Your task to perform on an android device: turn notification dots off Image 0: 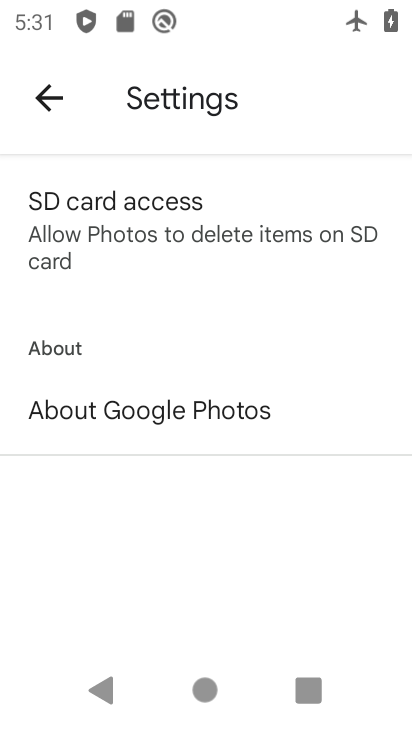
Step 0: press home button
Your task to perform on an android device: turn notification dots off Image 1: 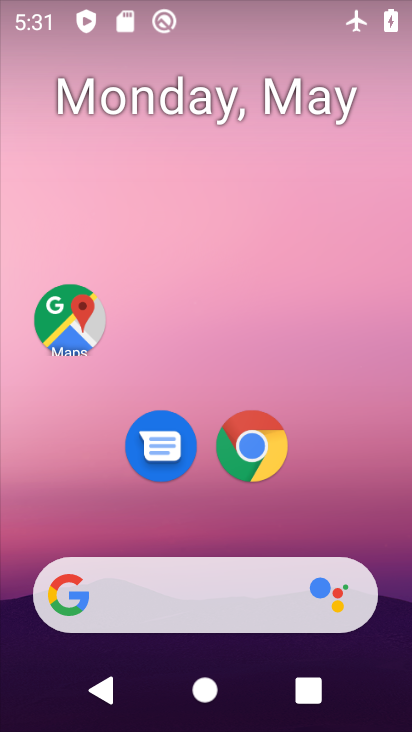
Step 1: drag from (353, 502) to (183, 124)
Your task to perform on an android device: turn notification dots off Image 2: 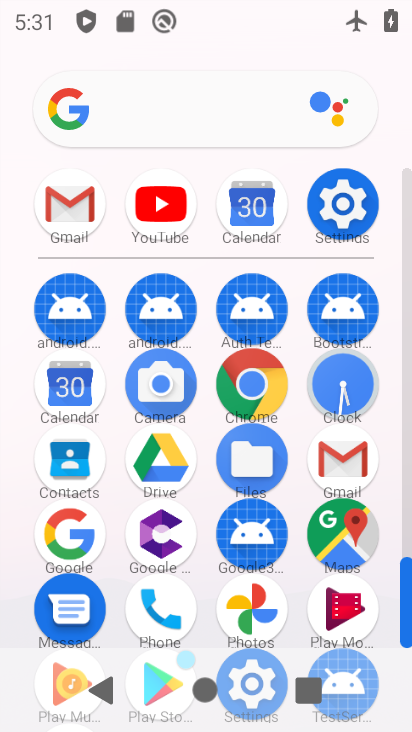
Step 2: click (330, 197)
Your task to perform on an android device: turn notification dots off Image 3: 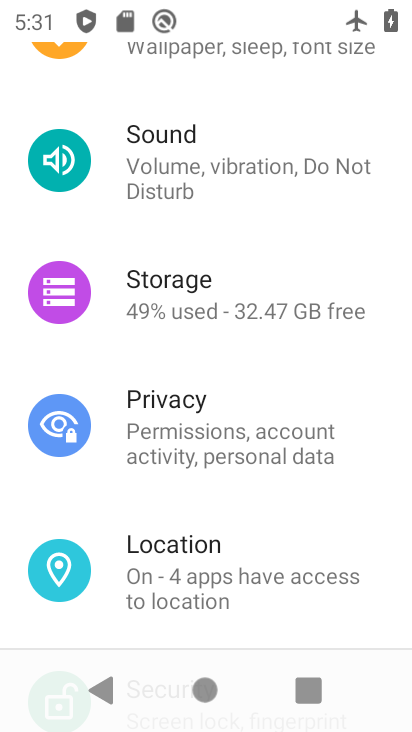
Step 3: drag from (216, 213) to (192, 624)
Your task to perform on an android device: turn notification dots off Image 4: 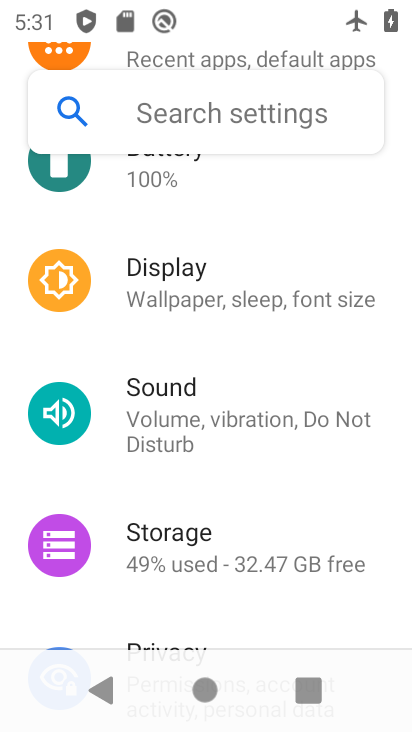
Step 4: drag from (159, 220) to (186, 699)
Your task to perform on an android device: turn notification dots off Image 5: 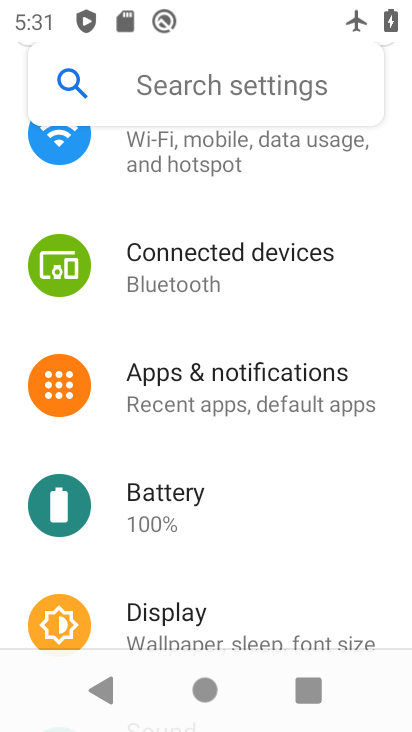
Step 5: click (232, 371)
Your task to perform on an android device: turn notification dots off Image 6: 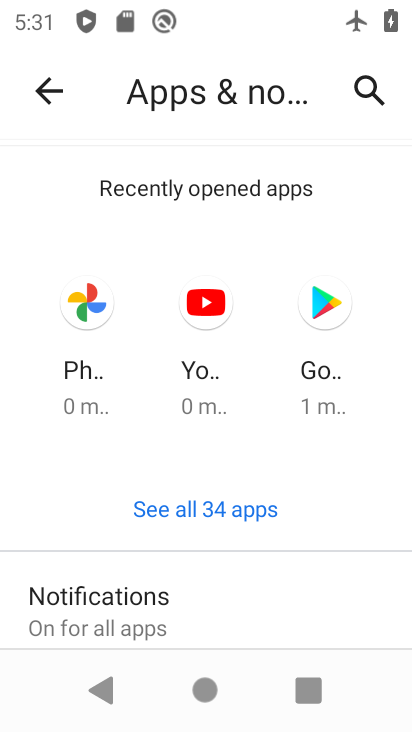
Step 6: drag from (231, 575) to (203, 286)
Your task to perform on an android device: turn notification dots off Image 7: 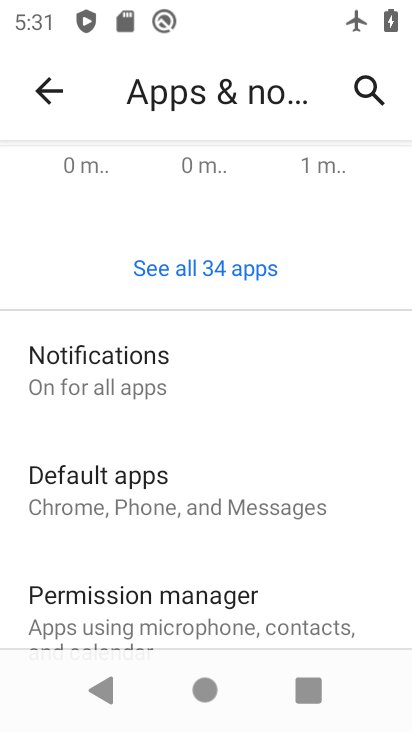
Step 7: click (118, 353)
Your task to perform on an android device: turn notification dots off Image 8: 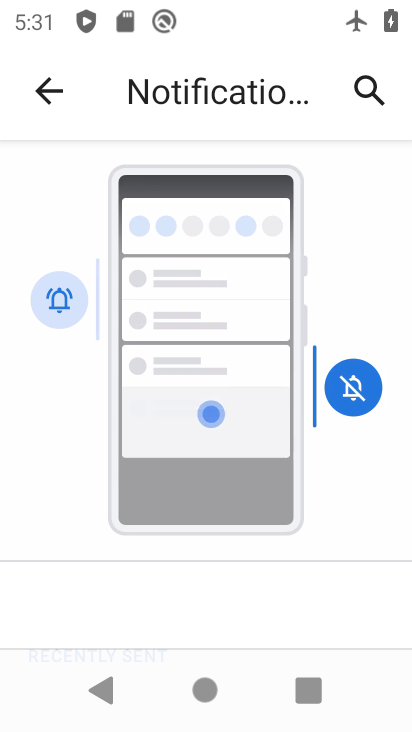
Step 8: drag from (321, 474) to (306, 139)
Your task to perform on an android device: turn notification dots off Image 9: 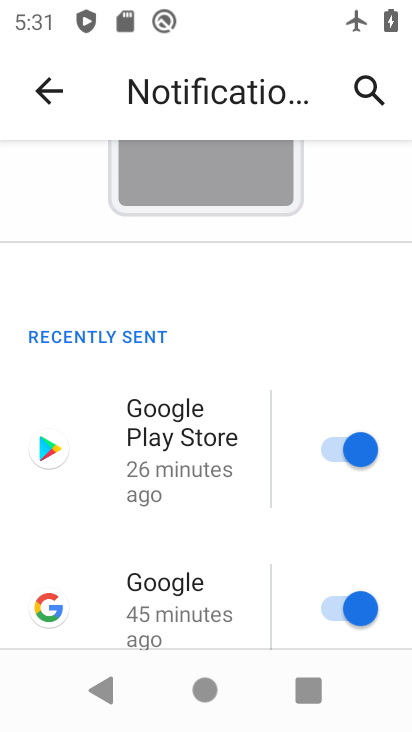
Step 9: drag from (212, 543) to (210, 280)
Your task to perform on an android device: turn notification dots off Image 10: 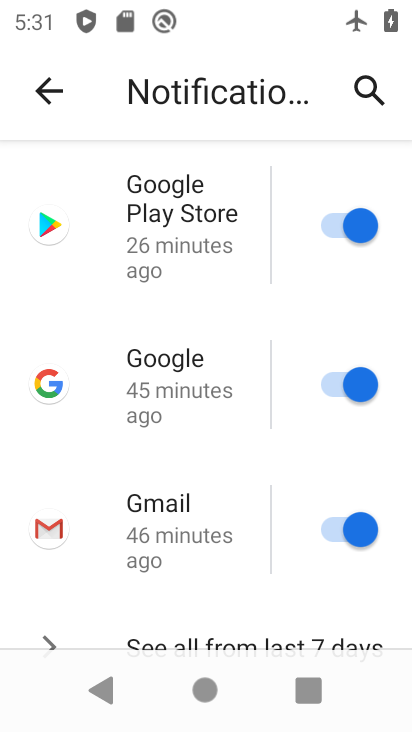
Step 10: drag from (225, 563) to (193, 155)
Your task to perform on an android device: turn notification dots off Image 11: 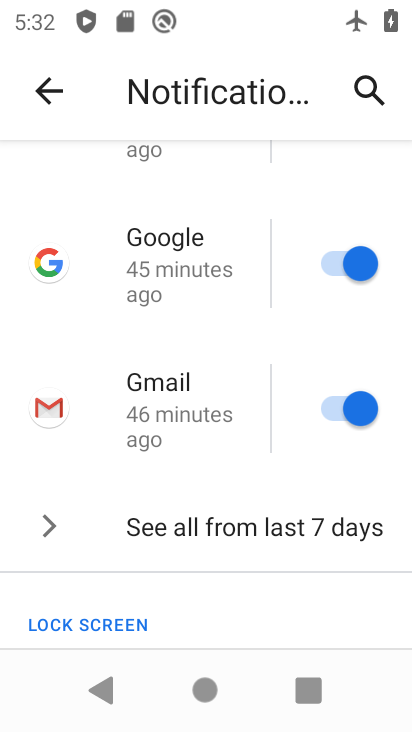
Step 11: drag from (219, 567) to (162, 319)
Your task to perform on an android device: turn notification dots off Image 12: 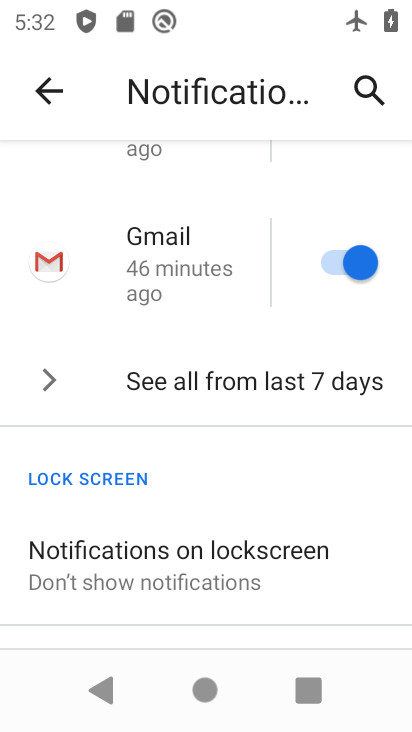
Step 12: drag from (173, 503) to (88, 204)
Your task to perform on an android device: turn notification dots off Image 13: 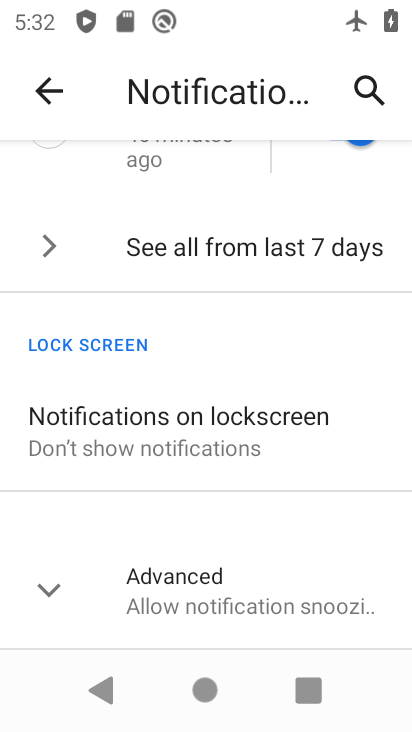
Step 13: click (51, 582)
Your task to perform on an android device: turn notification dots off Image 14: 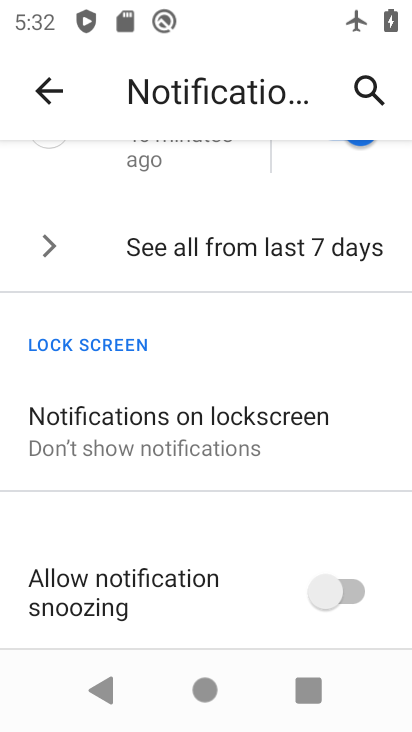
Step 14: drag from (180, 517) to (117, 193)
Your task to perform on an android device: turn notification dots off Image 15: 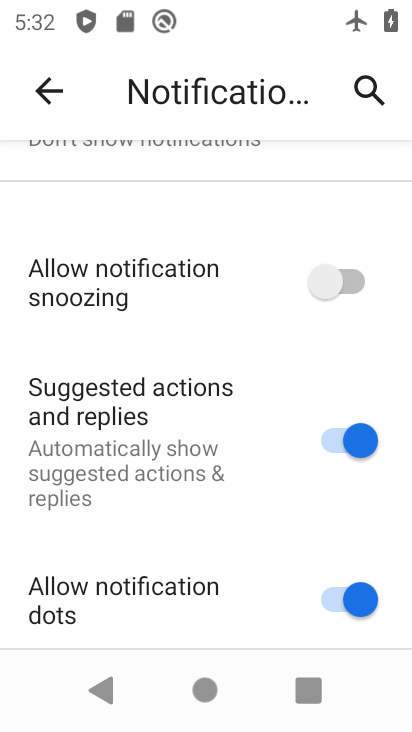
Step 15: click (364, 591)
Your task to perform on an android device: turn notification dots off Image 16: 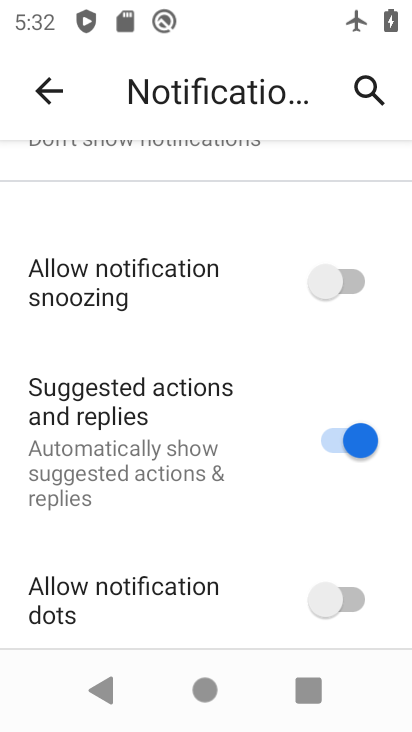
Step 16: task complete